Your task to perform on an android device: allow notifications from all sites in the chrome app Image 0: 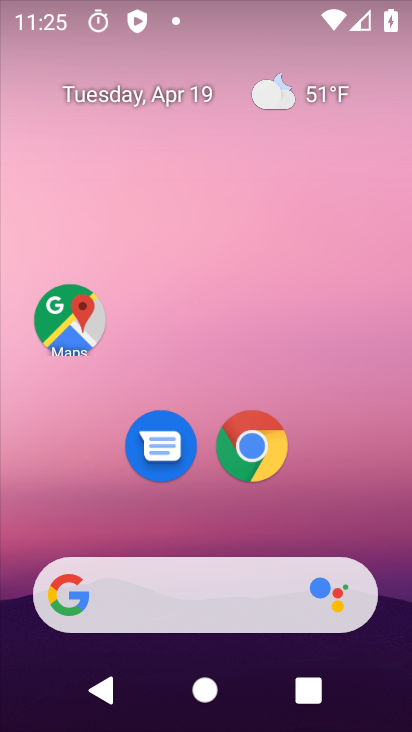
Step 0: click (242, 450)
Your task to perform on an android device: allow notifications from all sites in the chrome app Image 1: 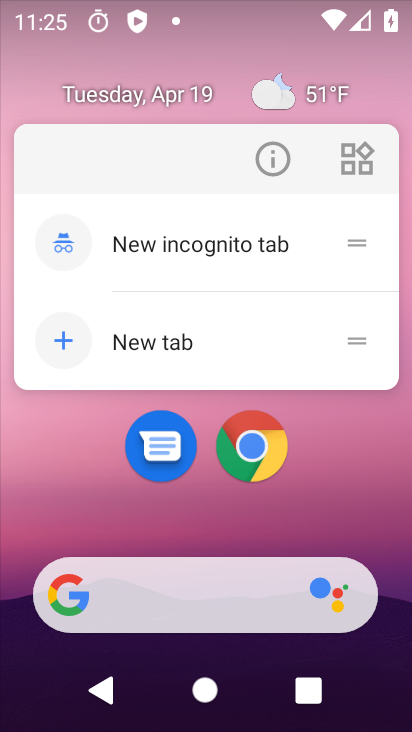
Step 1: click (242, 450)
Your task to perform on an android device: allow notifications from all sites in the chrome app Image 2: 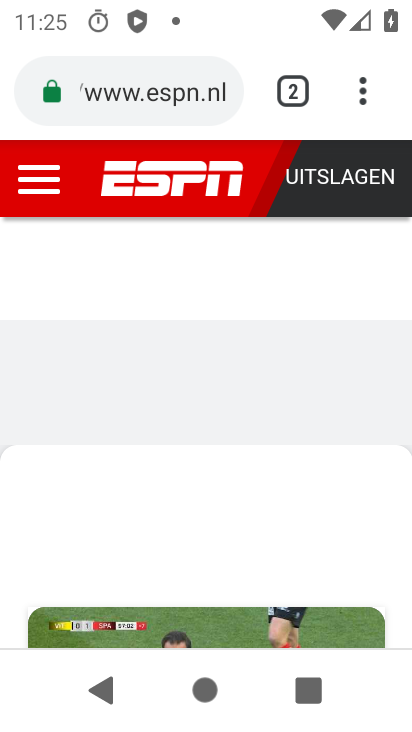
Step 2: click (361, 84)
Your task to perform on an android device: allow notifications from all sites in the chrome app Image 3: 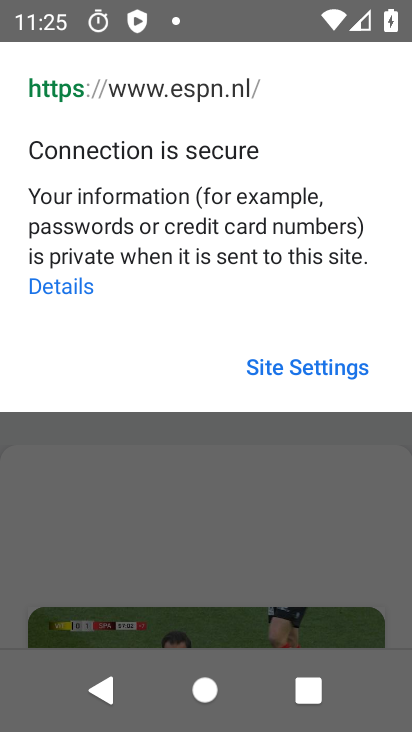
Step 3: press back button
Your task to perform on an android device: allow notifications from all sites in the chrome app Image 4: 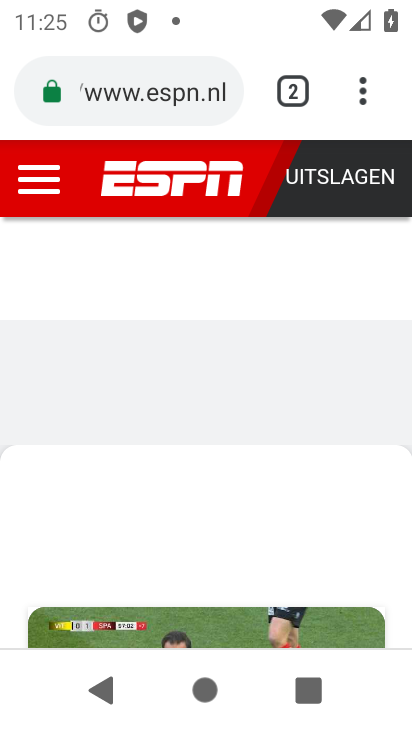
Step 4: drag from (364, 88) to (378, 424)
Your task to perform on an android device: allow notifications from all sites in the chrome app Image 5: 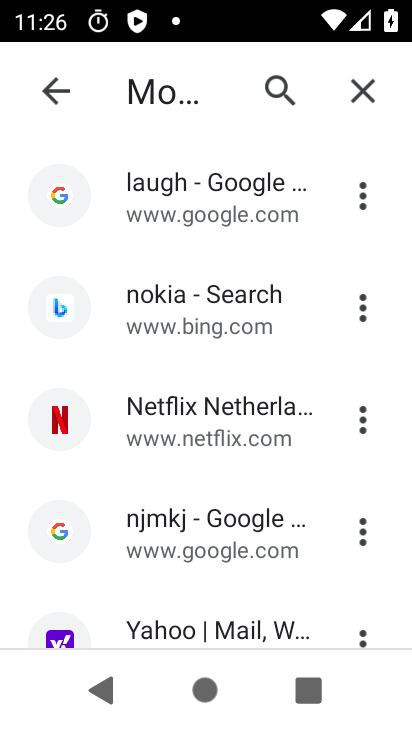
Step 5: click (45, 87)
Your task to perform on an android device: allow notifications from all sites in the chrome app Image 6: 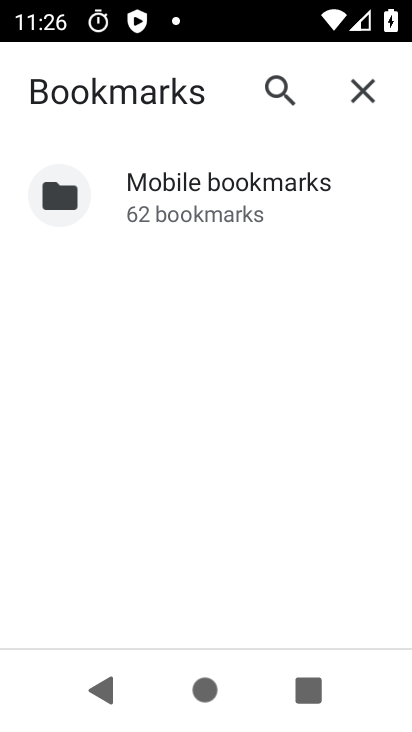
Step 6: press back button
Your task to perform on an android device: allow notifications from all sites in the chrome app Image 7: 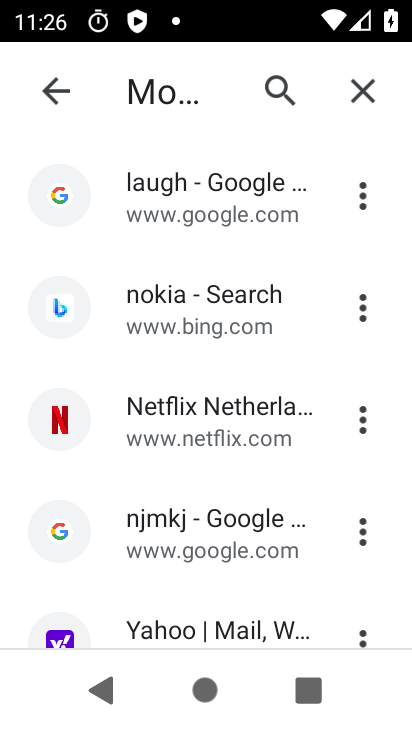
Step 7: click (37, 80)
Your task to perform on an android device: allow notifications from all sites in the chrome app Image 8: 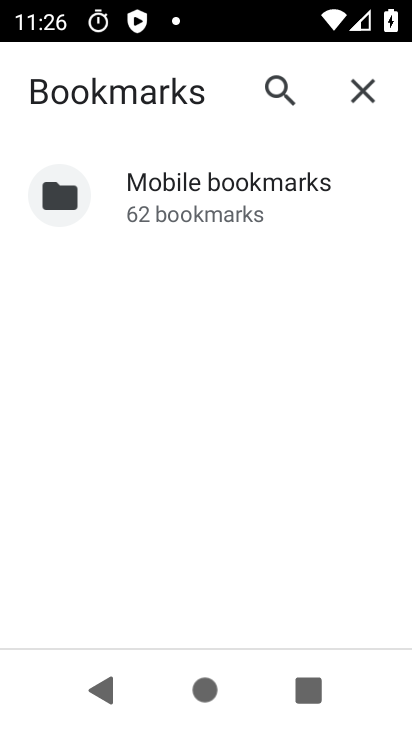
Step 8: click (353, 90)
Your task to perform on an android device: allow notifications from all sites in the chrome app Image 9: 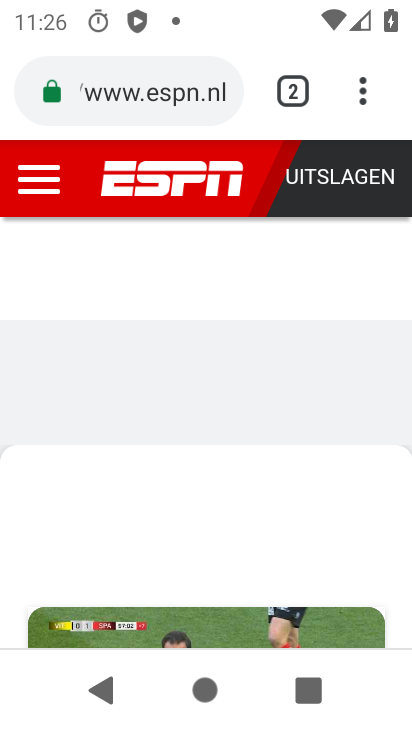
Step 9: task complete